Your task to perform on an android device: Open the map Image 0: 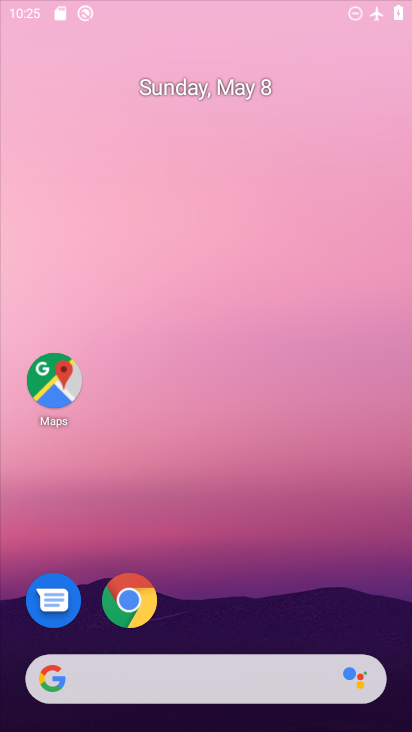
Step 0: click (218, 150)
Your task to perform on an android device: Open the map Image 1: 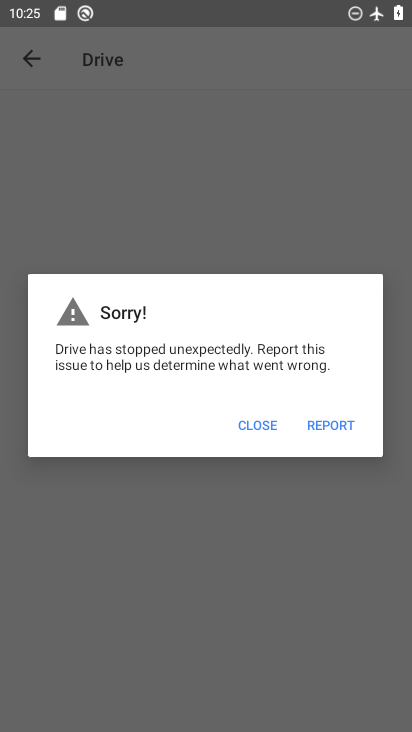
Step 1: press home button
Your task to perform on an android device: Open the map Image 2: 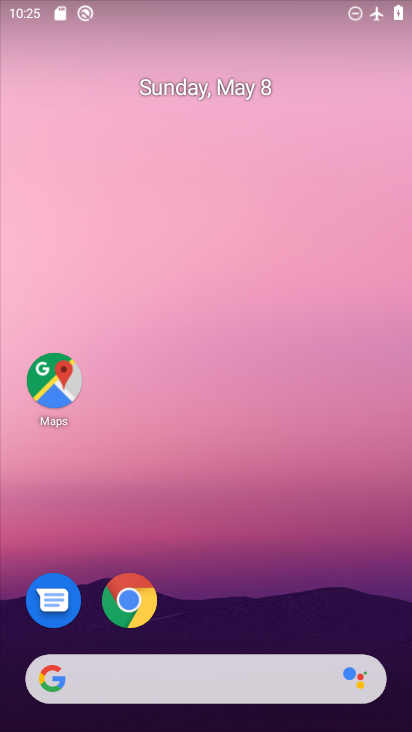
Step 2: drag from (216, 728) to (223, 152)
Your task to perform on an android device: Open the map Image 3: 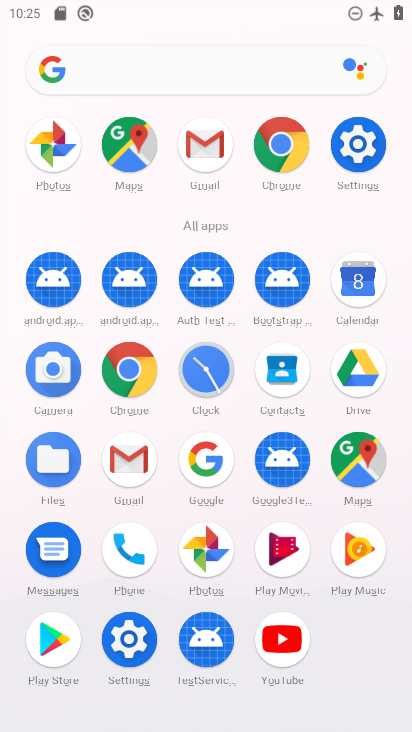
Step 3: click (358, 464)
Your task to perform on an android device: Open the map Image 4: 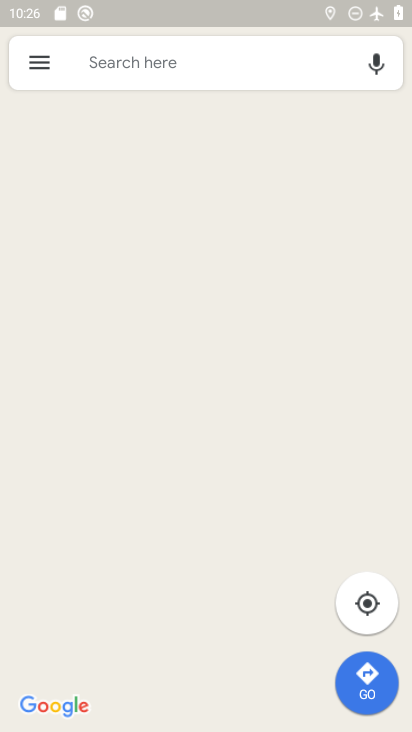
Step 4: task complete